Your task to perform on an android device: turn pop-ups on in chrome Image 0: 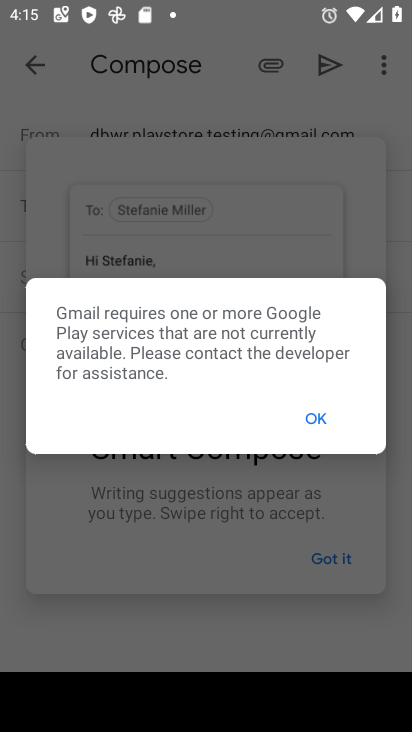
Step 0: press home button
Your task to perform on an android device: turn pop-ups on in chrome Image 1: 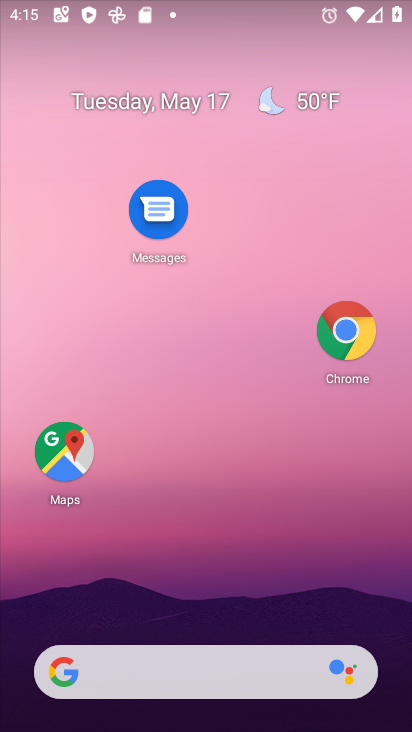
Step 1: click (371, 314)
Your task to perform on an android device: turn pop-ups on in chrome Image 2: 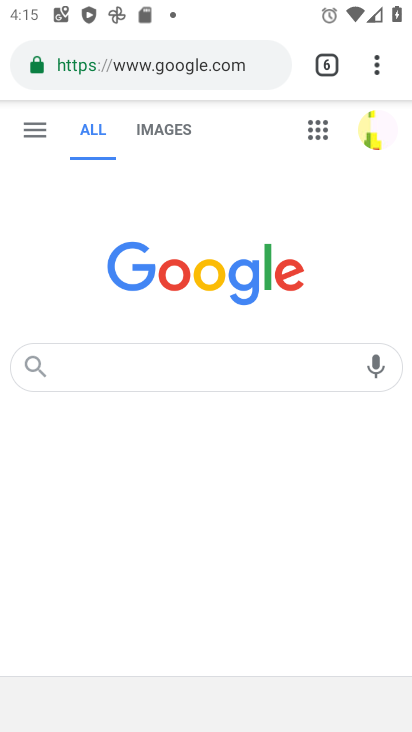
Step 2: click (383, 46)
Your task to perform on an android device: turn pop-ups on in chrome Image 3: 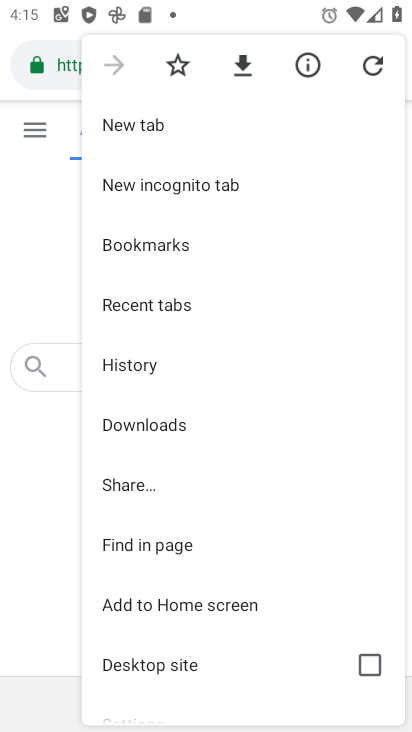
Step 3: drag from (267, 441) to (241, 313)
Your task to perform on an android device: turn pop-ups on in chrome Image 4: 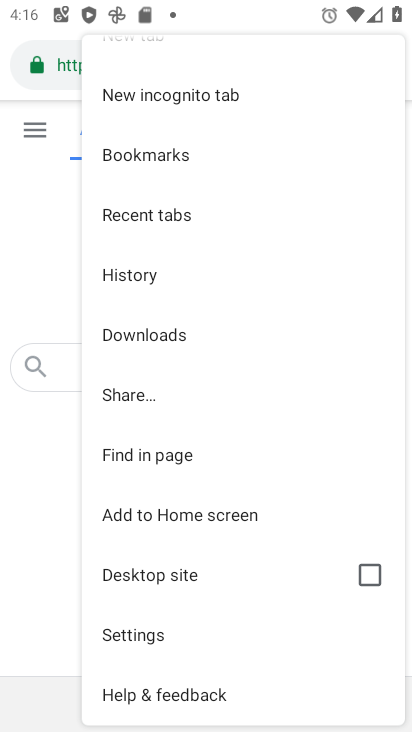
Step 4: click (173, 632)
Your task to perform on an android device: turn pop-ups on in chrome Image 5: 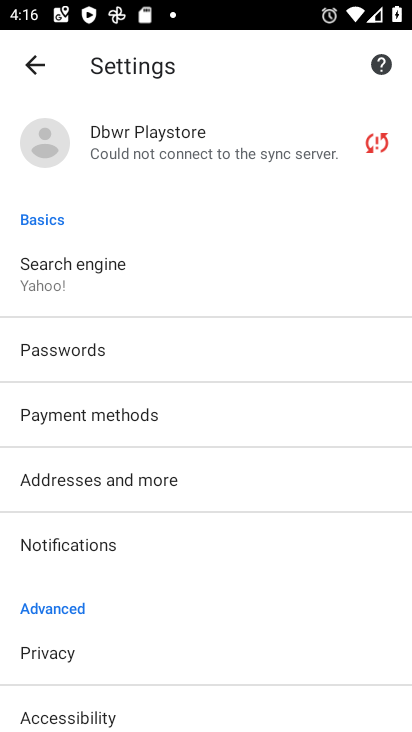
Step 5: drag from (173, 632) to (105, 268)
Your task to perform on an android device: turn pop-ups on in chrome Image 6: 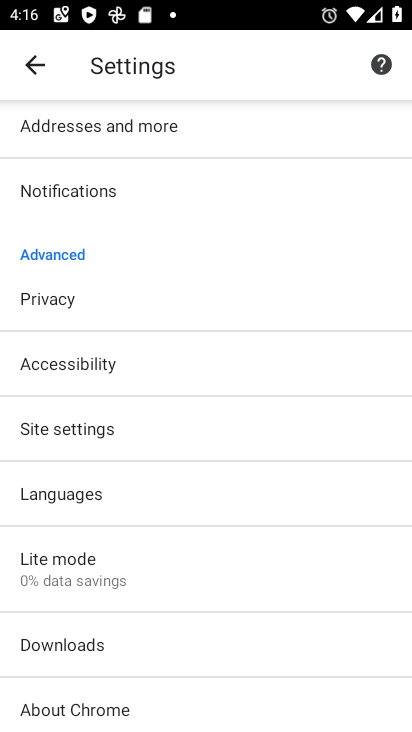
Step 6: click (57, 448)
Your task to perform on an android device: turn pop-ups on in chrome Image 7: 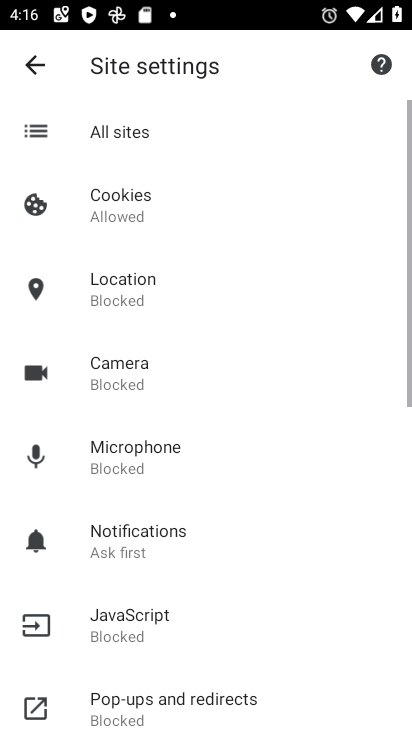
Step 7: drag from (57, 448) to (17, 164)
Your task to perform on an android device: turn pop-ups on in chrome Image 8: 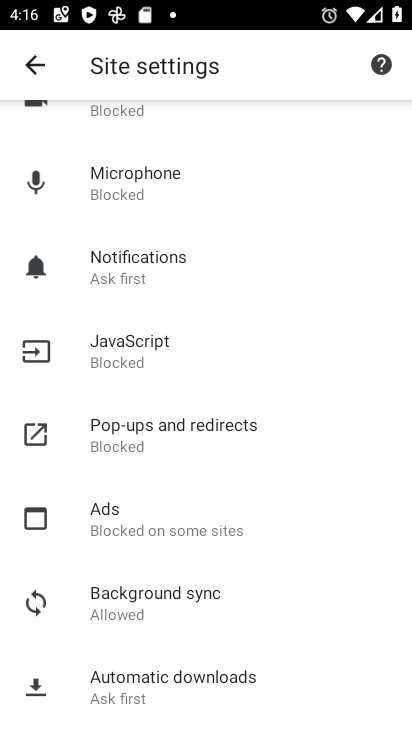
Step 8: click (88, 450)
Your task to perform on an android device: turn pop-ups on in chrome Image 9: 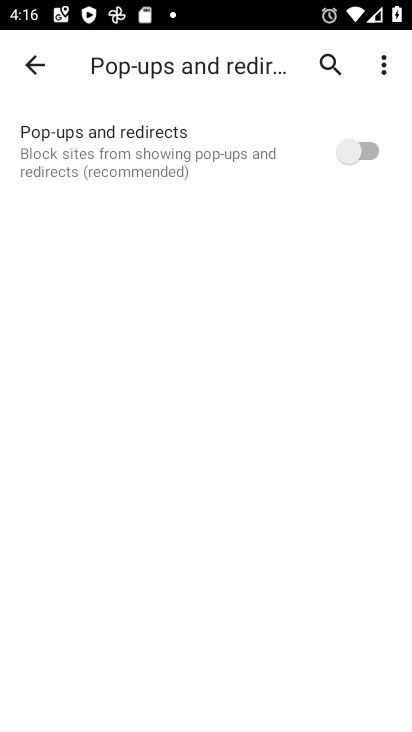
Step 9: click (349, 167)
Your task to perform on an android device: turn pop-ups on in chrome Image 10: 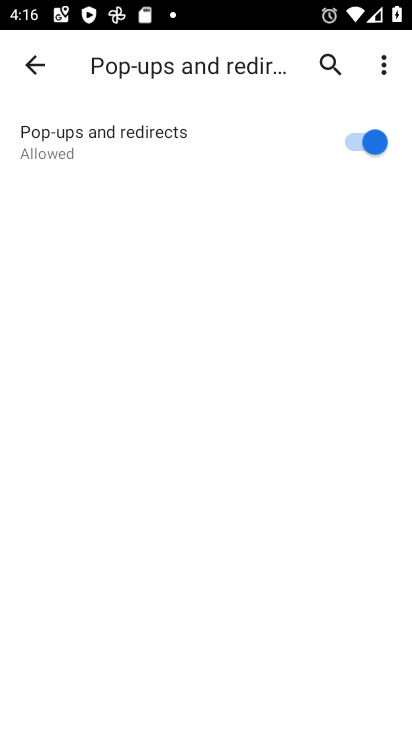
Step 10: task complete